Your task to perform on an android device: turn off location history Image 0: 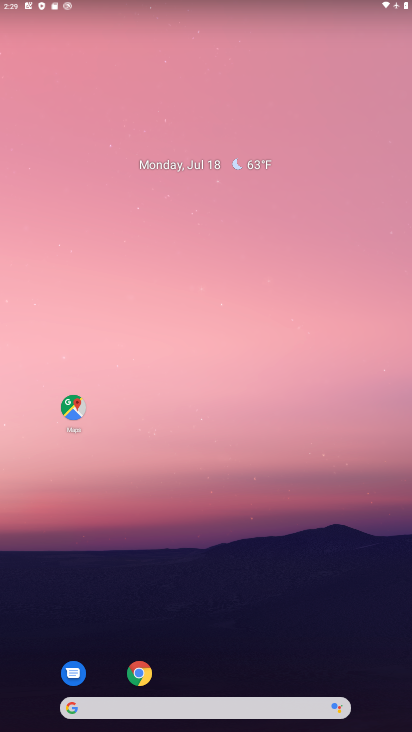
Step 0: drag from (202, 656) to (202, 403)
Your task to perform on an android device: turn off location history Image 1: 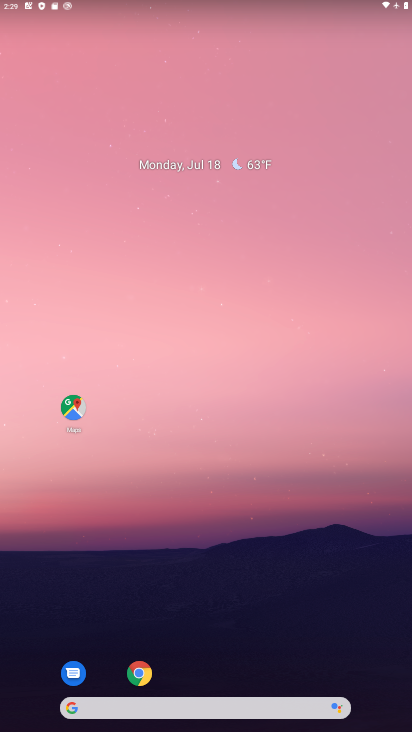
Step 1: drag from (271, 647) to (219, 226)
Your task to perform on an android device: turn off location history Image 2: 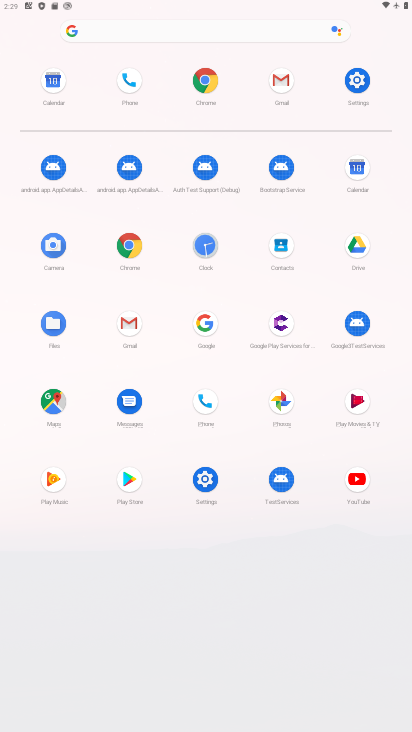
Step 2: click (357, 79)
Your task to perform on an android device: turn off location history Image 3: 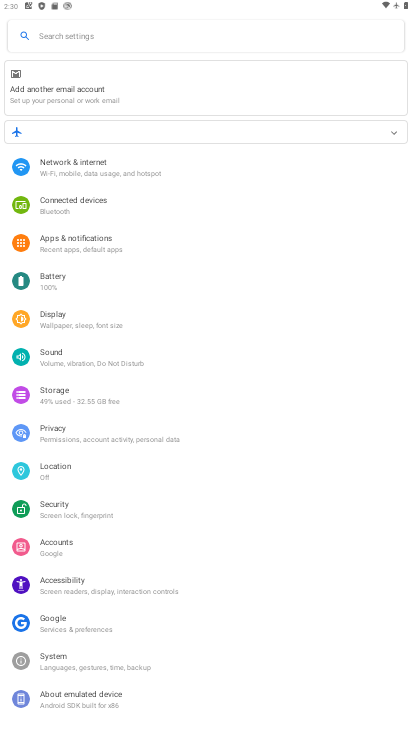
Step 3: click (63, 468)
Your task to perform on an android device: turn off location history Image 4: 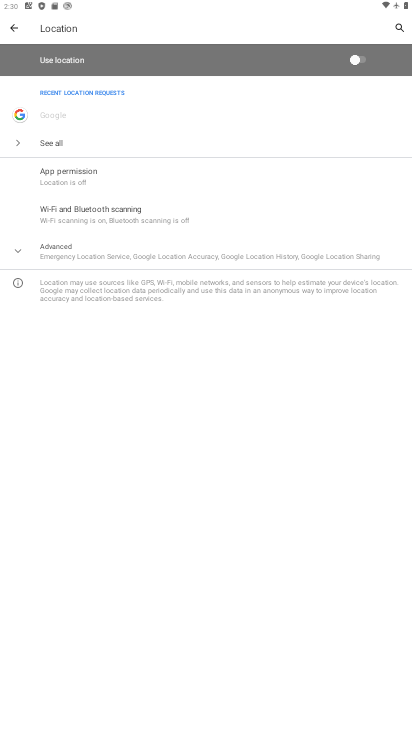
Step 4: click (164, 246)
Your task to perform on an android device: turn off location history Image 5: 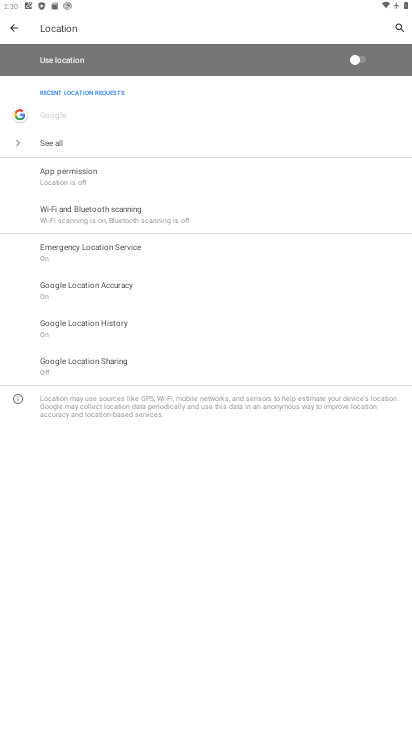
Step 5: click (110, 321)
Your task to perform on an android device: turn off location history Image 6: 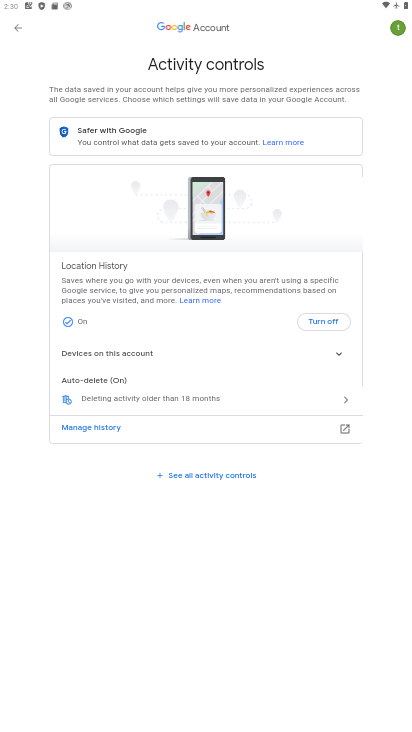
Step 6: click (329, 328)
Your task to perform on an android device: turn off location history Image 7: 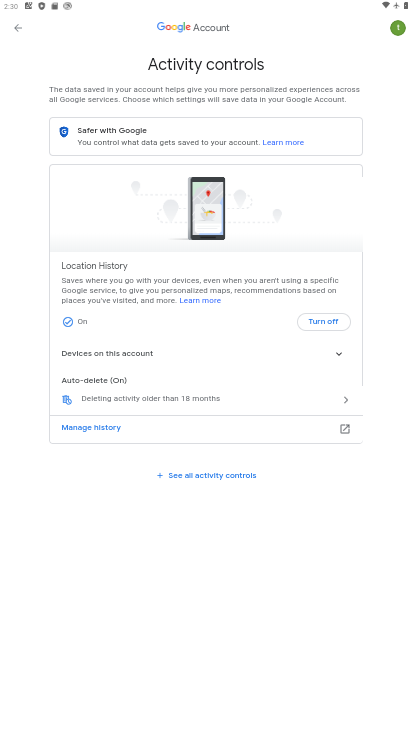
Step 7: click (325, 323)
Your task to perform on an android device: turn off location history Image 8: 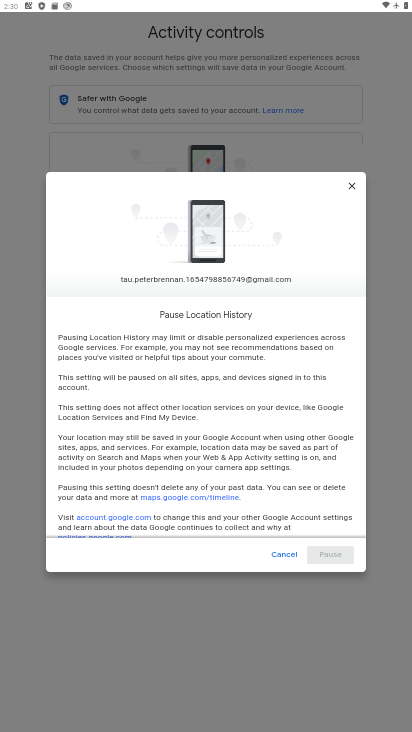
Step 8: task complete